Your task to perform on an android device: turn pop-ups off in chrome Image 0: 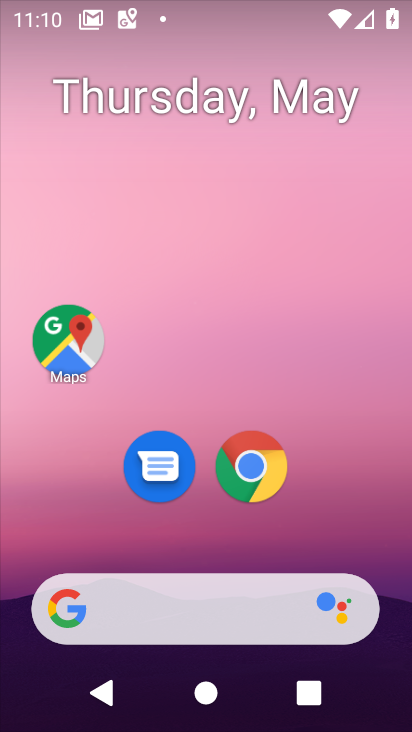
Step 0: drag from (309, 515) to (339, 0)
Your task to perform on an android device: turn pop-ups off in chrome Image 1: 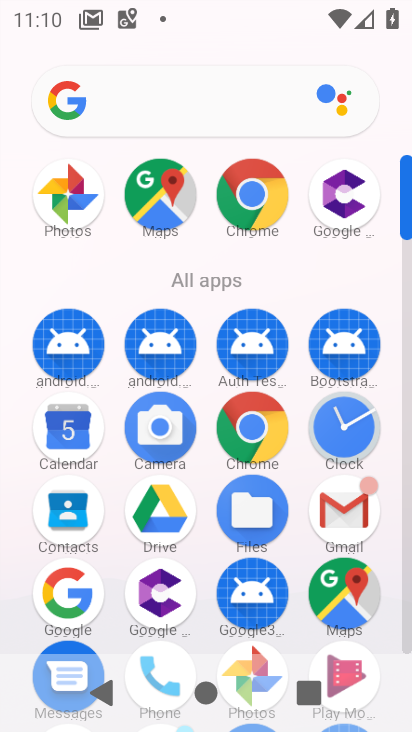
Step 1: click (234, 229)
Your task to perform on an android device: turn pop-ups off in chrome Image 2: 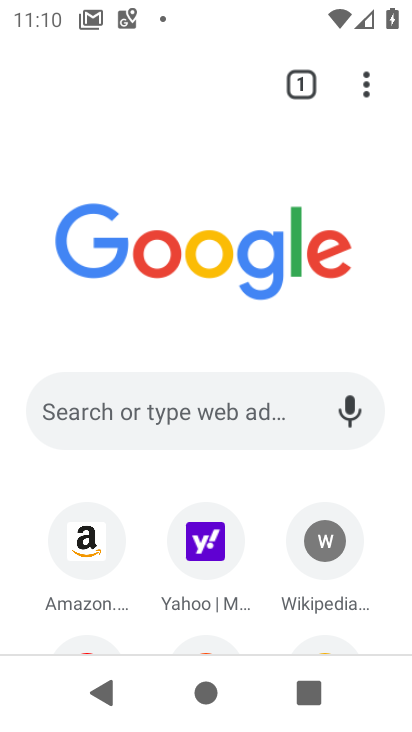
Step 2: click (369, 91)
Your task to perform on an android device: turn pop-ups off in chrome Image 3: 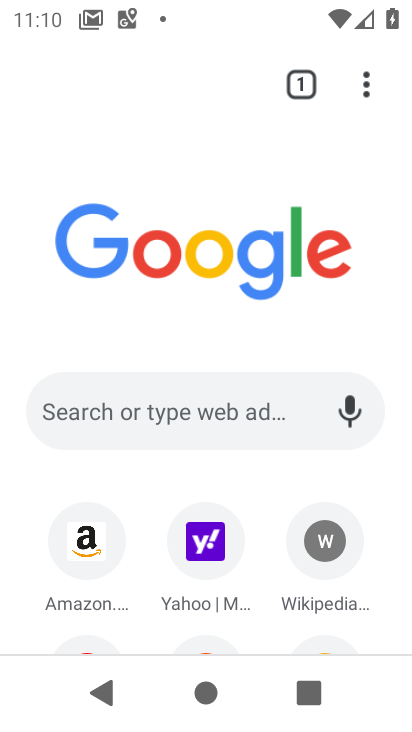
Step 3: click (372, 98)
Your task to perform on an android device: turn pop-ups off in chrome Image 4: 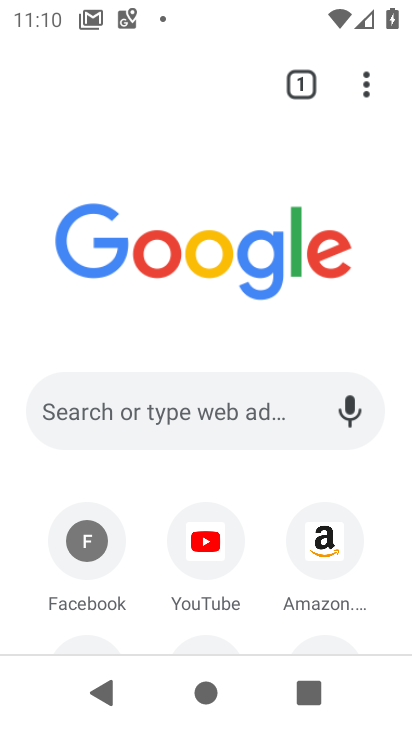
Step 4: click (364, 89)
Your task to perform on an android device: turn pop-ups off in chrome Image 5: 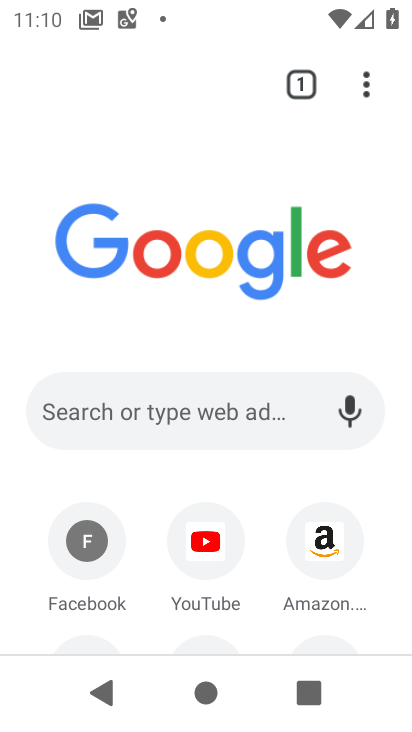
Step 5: click (367, 81)
Your task to perform on an android device: turn pop-ups off in chrome Image 6: 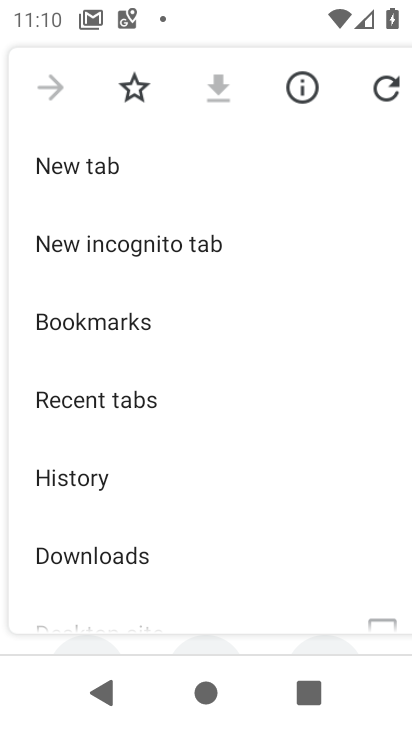
Step 6: drag from (169, 487) to (163, 157)
Your task to perform on an android device: turn pop-ups off in chrome Image 7: 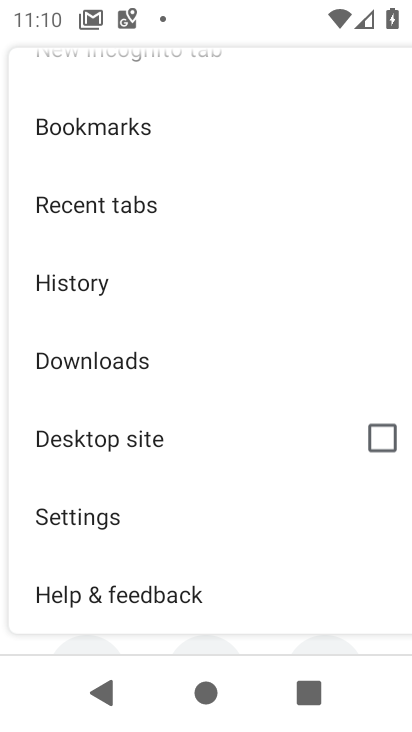
Step 7: click (131, 512)
Your task to perform on an android device: turn pop-ups off in chrome Image 8: 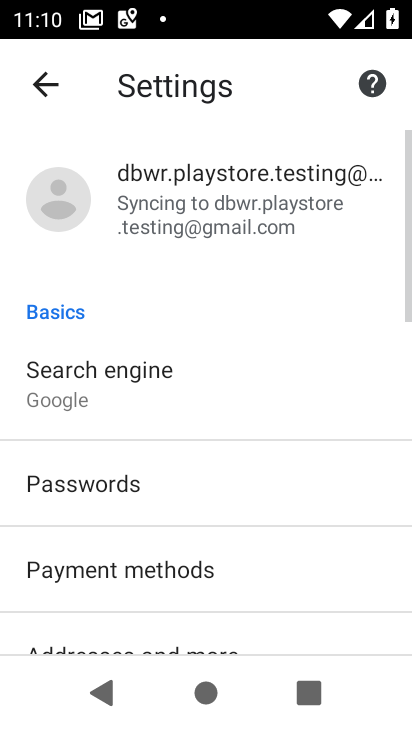
Step 8: drag from (210, 542) to (184, 219)
Your task to perform on an android device: turn pop-ups off in chrome Image 9: 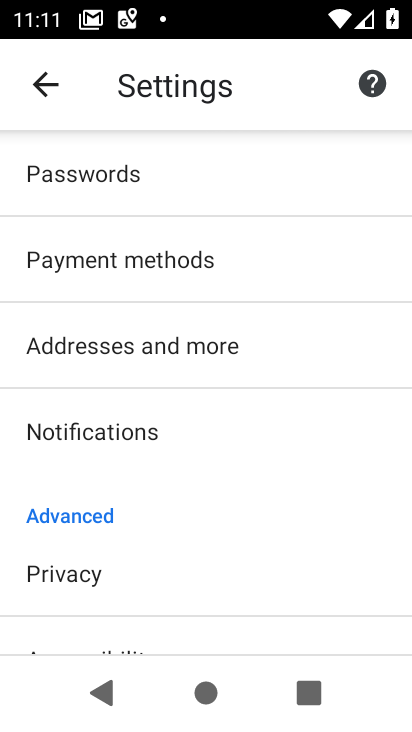
Step 9: drag from (223, 560) to (191, 317)
Your task to perform on an android device: turn pop-ups off in chrome Image 10: 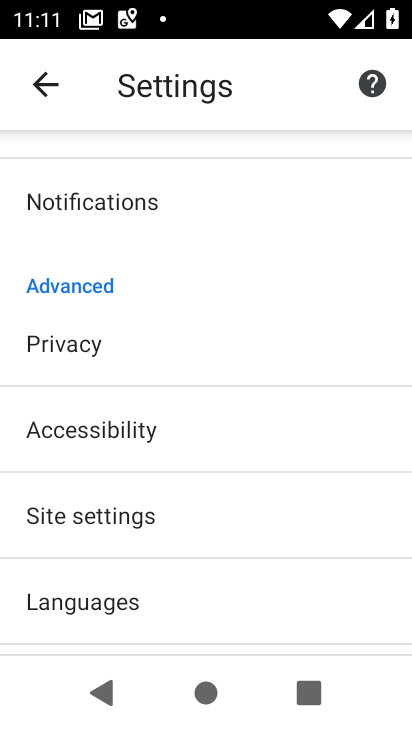
Step 10: drag from (287, 550) to (227, 273)
Your task to perform on an android device: turn pop-ups off in chrome Image 11: 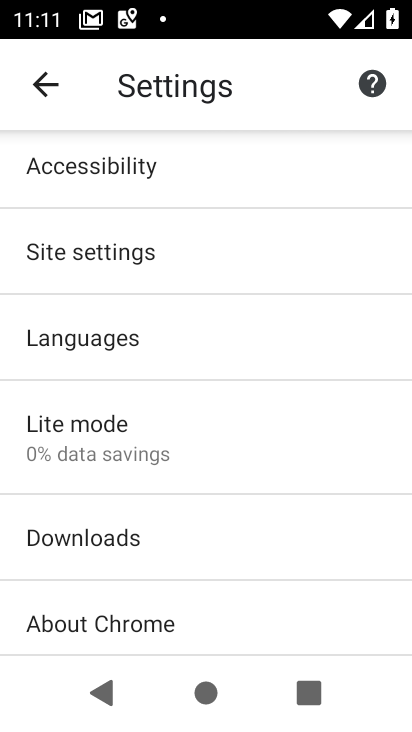
Step 11: click (182, 263)
Your task to perform on an android device: turn pop-ups off in chrome Image 12: 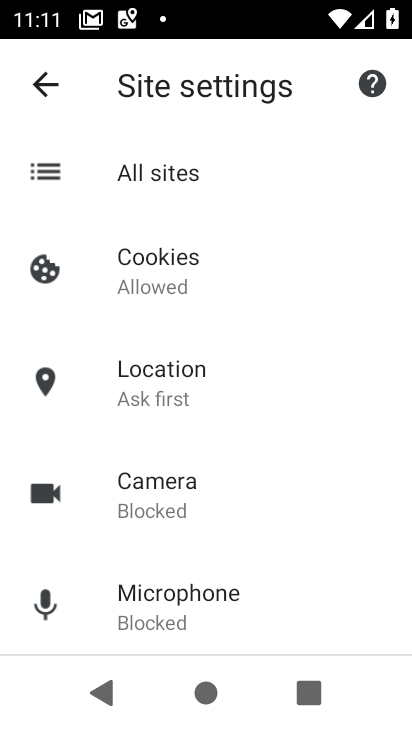
Step 12: drag from (308, 571) to (240, 240)
Your task to perform on an android device: turn pop-ups off in chrome Image 13: 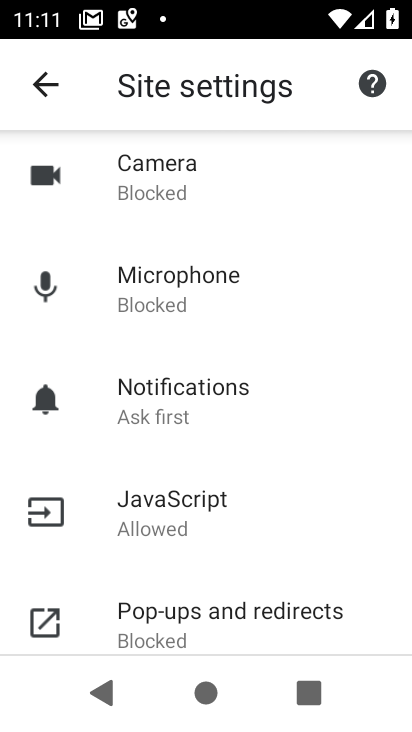
Step 13: click (273, 616)
Your task to perform on an android device: turn pop-ups off in chrome Image 14: 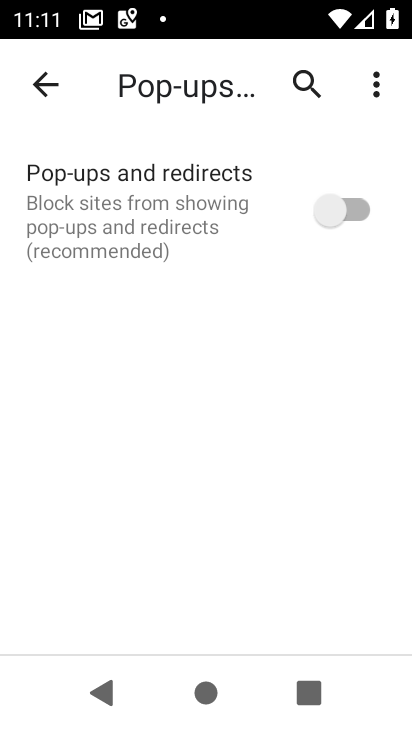
Step 14: task complete